Your task to perform on an android device: all mails in gmail Image 0: 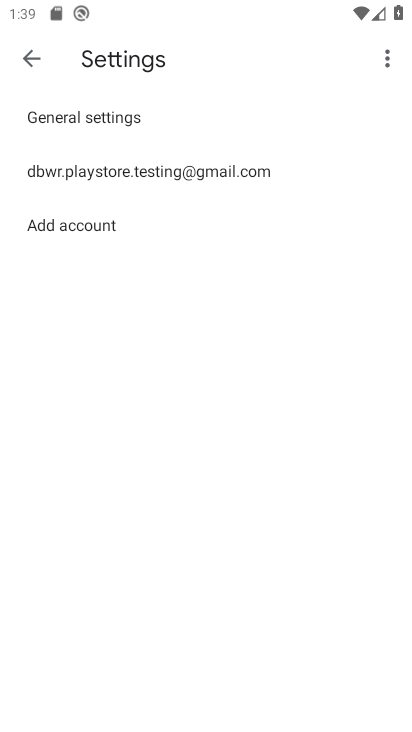
Step 0: press home button
Your task to perform on an android device: all mails in gmail Image 1: 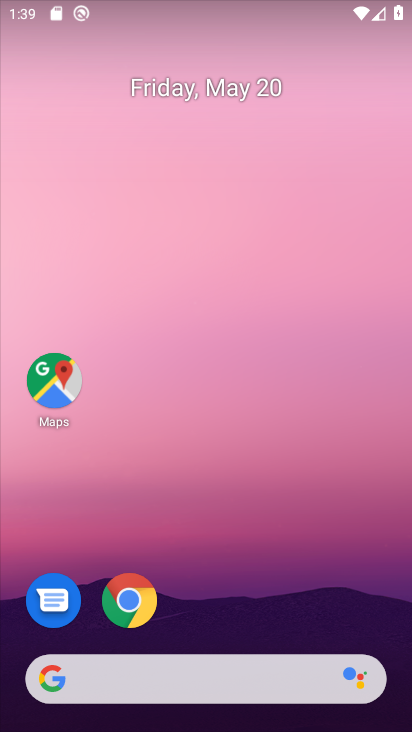
Step 1: drag from (266, 624) to (288, 69)
Your task to perform on an android device: all mails in gmail Image 2: 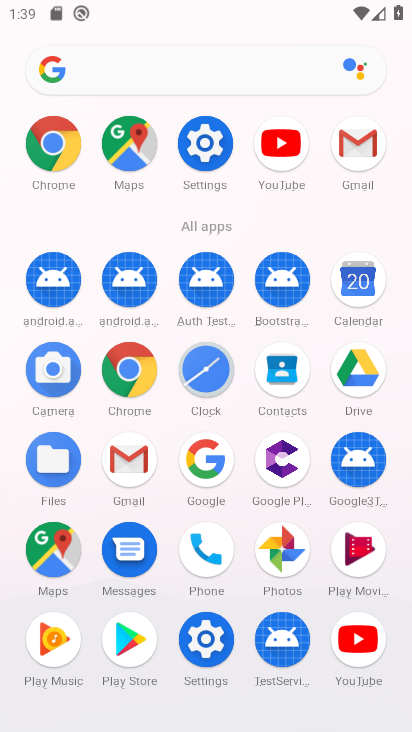
Step 2: click (141, 472)
Your task to perform on an android device: all mails in gmail Image 3: 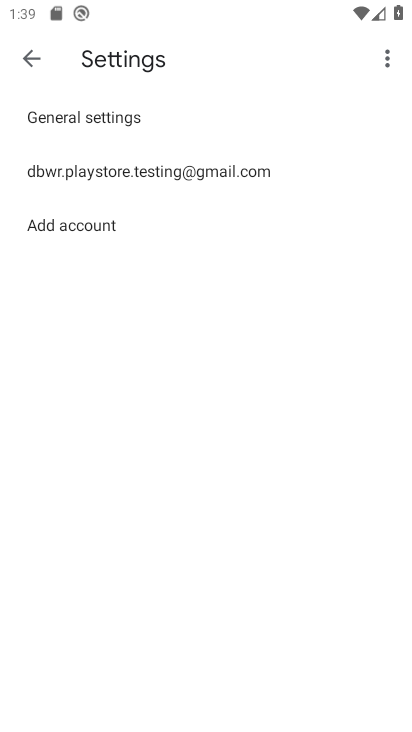
Step 3: click (24, 50)
Your task to perform on an android device: all mails in gmail Image 4: 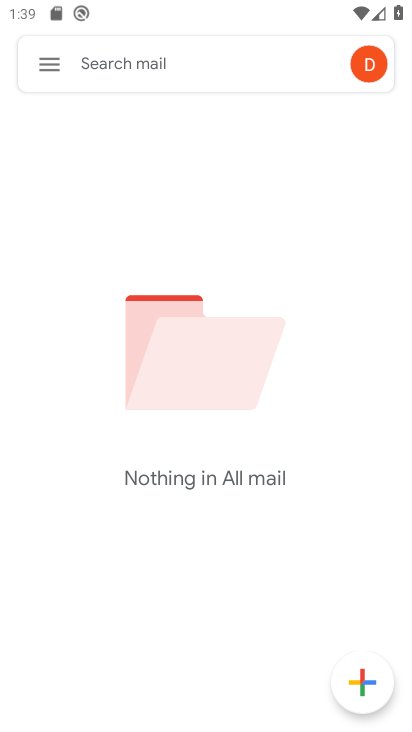
Step 4: click (48, 57)
Your task to perform on an android device: all mails in gmail Image 5: 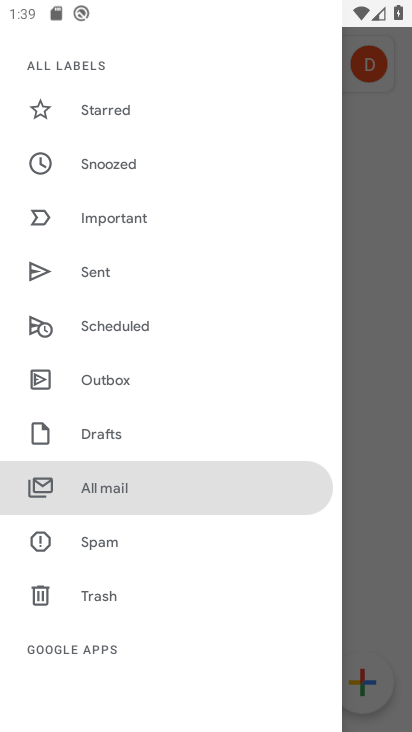
Step 5: click (121, 494)
Your task to perform on an android device: all mails in gmail Image 6: 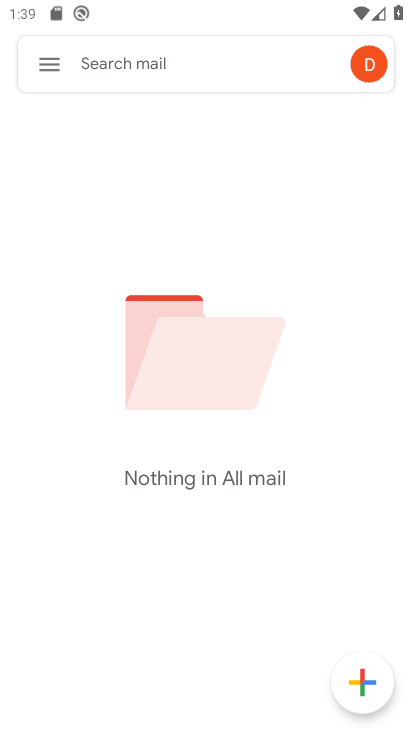
Step 6: task complete